Your task to perform on an android device: Go to settings Image 0: 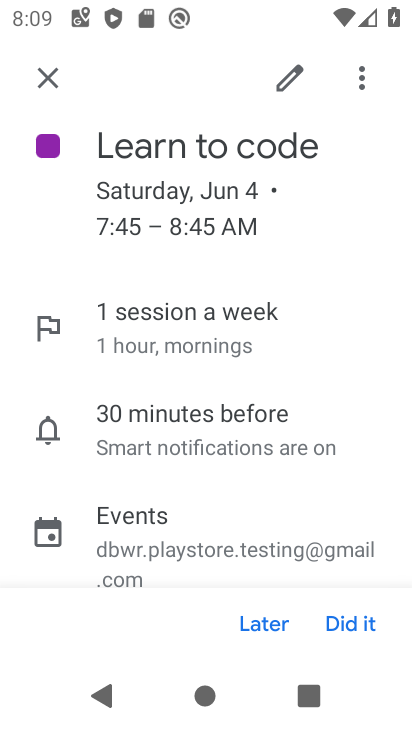
Step 0: press home button
Your task to perform on an android device: Go to settings Image 1: 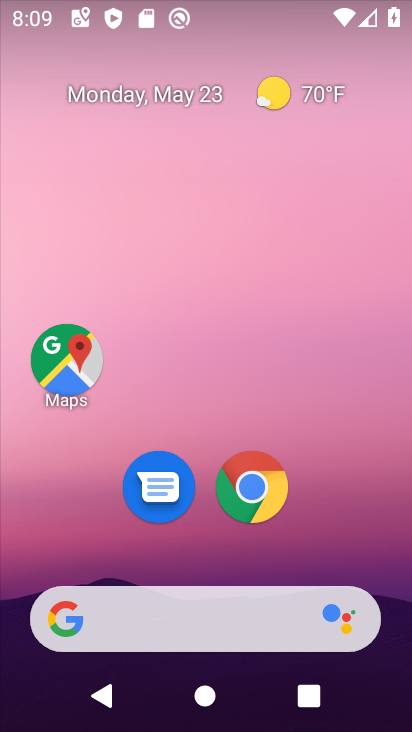
Step 1: drag from (194, 587) to (281, 155)
Your task to perform on an android device: Go to settings Image 2: 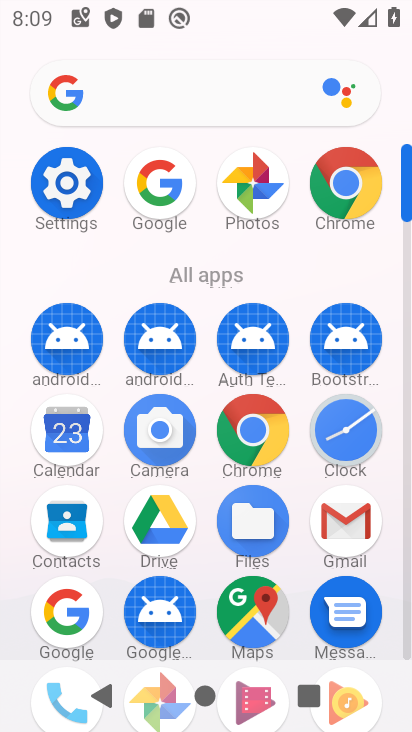
Step 2: click (72, 183)
Your task to perform on an android device: Go to settings Image 3: 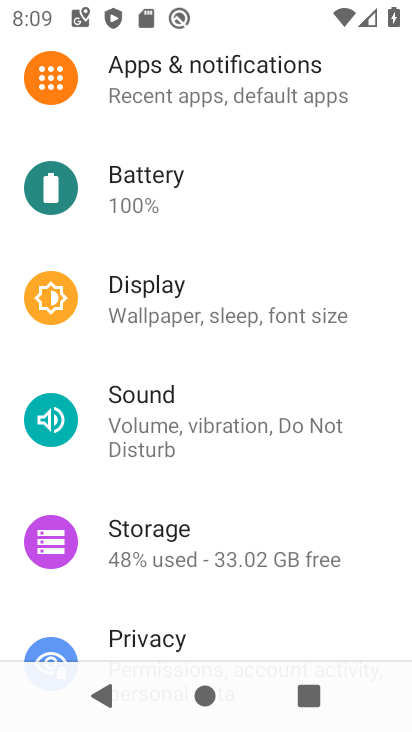
Step 3: task complete